Your task to perform on an android device: How much does the HisenseTV cost? Image 0: 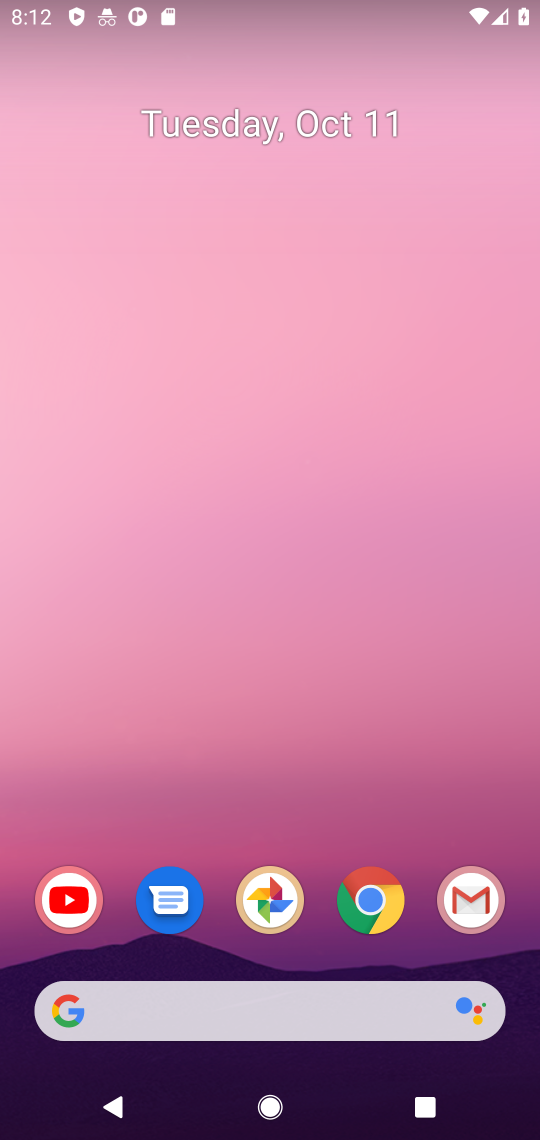
Step 0: click (477, 813)
Your task to perform on an android device: How much does the HisenseTV cost? Image 1: 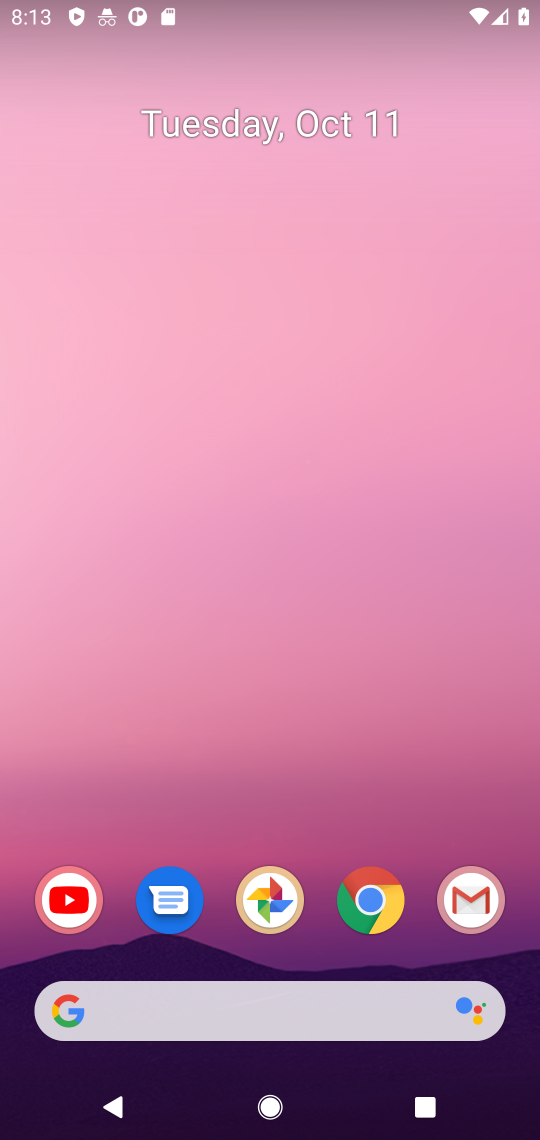
Step 1: click (384, 907)
Your task to perform on an android device: How much does the HisenseTV cost? Image 2: 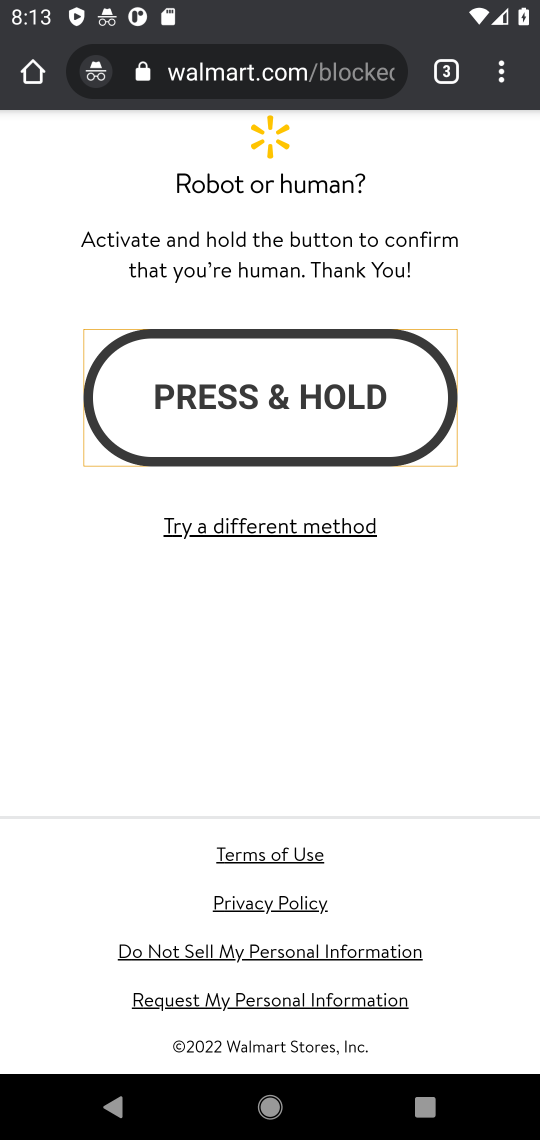
Step 2: click (297, 71)
Your task to perform on an android device: How much does the HisenseTV cost? Image 3: 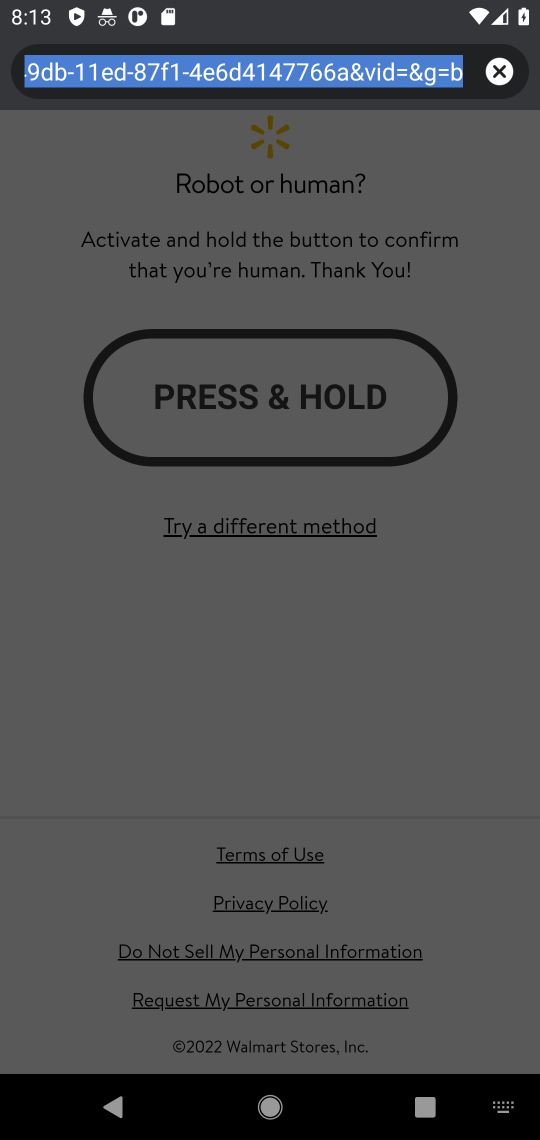
Step 3: type "How much does the HisenseTV cost?"
Your task to perform on an android device: How much does the HisenseTV cost? Image 4: 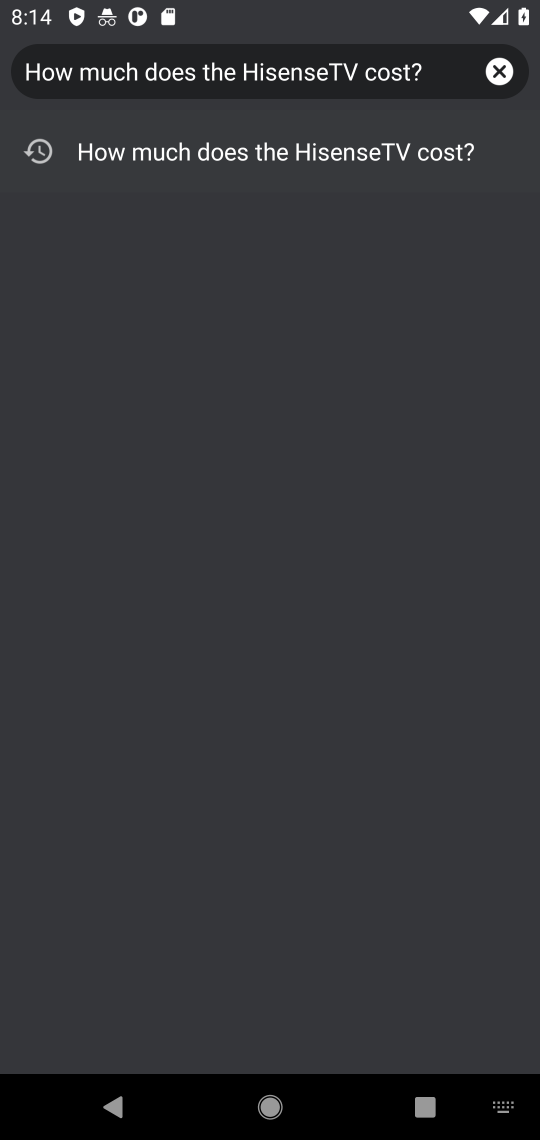
Step 4: click (413, 142)
Your task to perform on an android device: How much does the HisenseTV cost? Image 5: 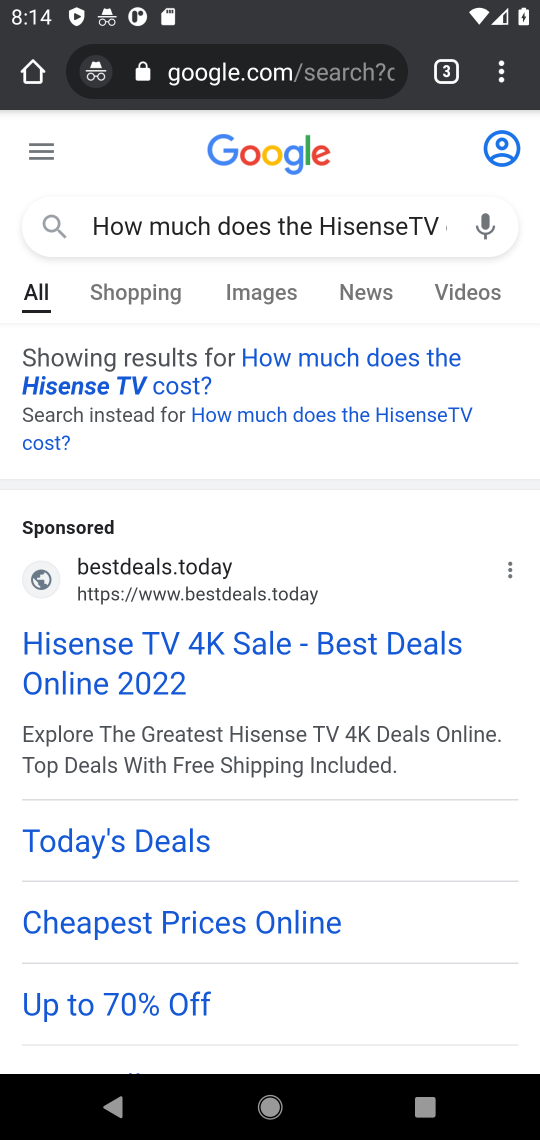
Step 5: task complete